Your task to perform on an android device: change the upload size in google photos Image 0: 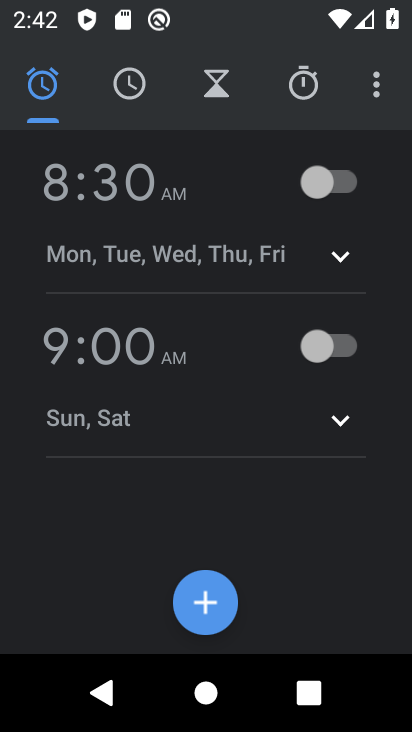
Step 0: press home button
Your task to perform on an android device: change the upload size in google photos Image 1: 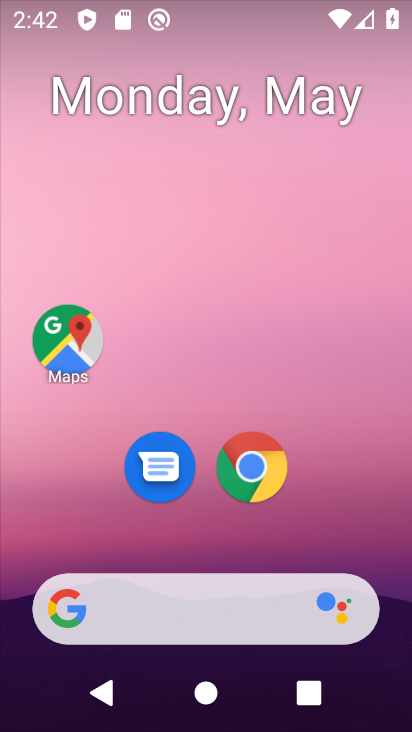
Step 1: drag from (347, 517) to (315, 27)
Your task to perform on an android device: change the upload size in google photos Image 2: 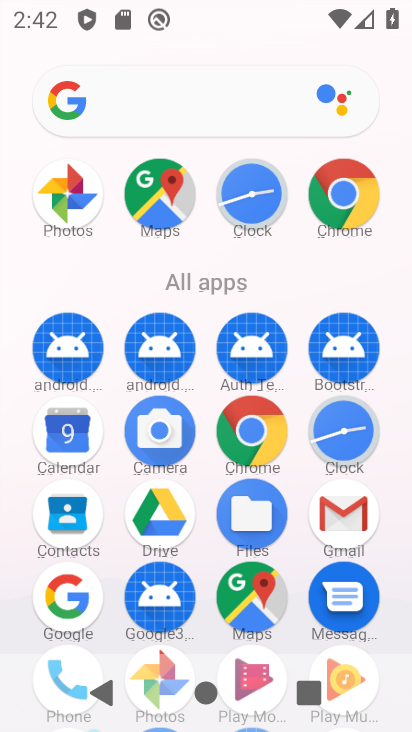
Step 2: drag from (116, 614) to (109, 392)
Your task to perform on an android device: change the upload size in google photos Image 3: 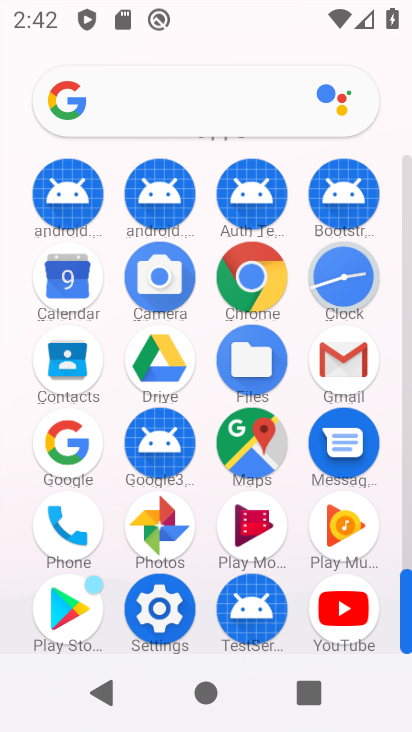
Step 3: click (156, 531)
Your task to perform on an android device: change the upload size in google photos Image 4: 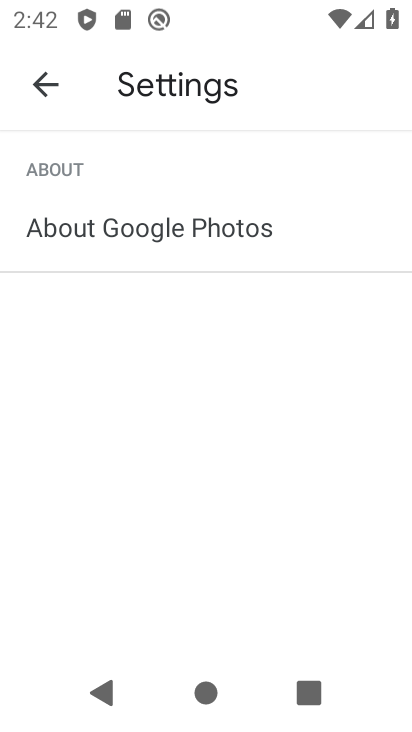
Step 4: click (48, 101)
Your task to perform on an android device: change the upload size in google photos Image 5: 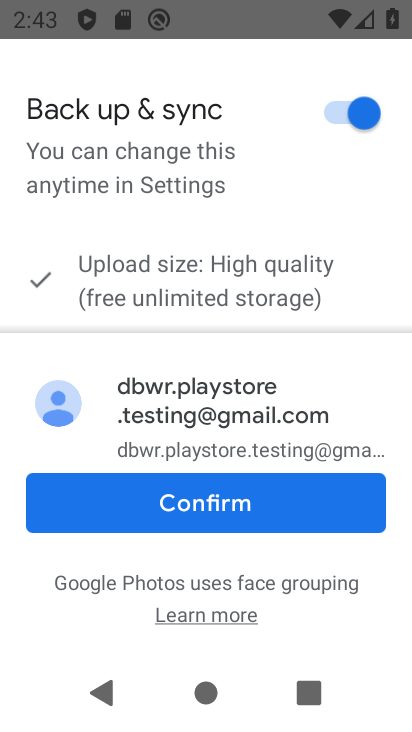
Step 5: click (284, 492)
Your task to perform on an android device: change the upload size in google photos Image 6: 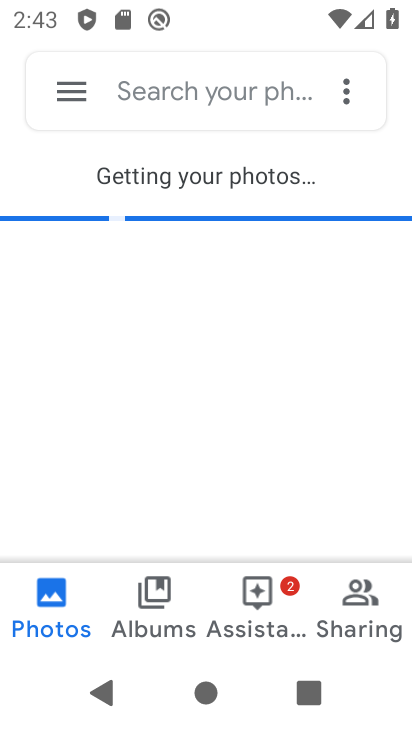
Step 6: click (67, 98)
Your task to perform on an android device: change the upload size in google photos Image 7: 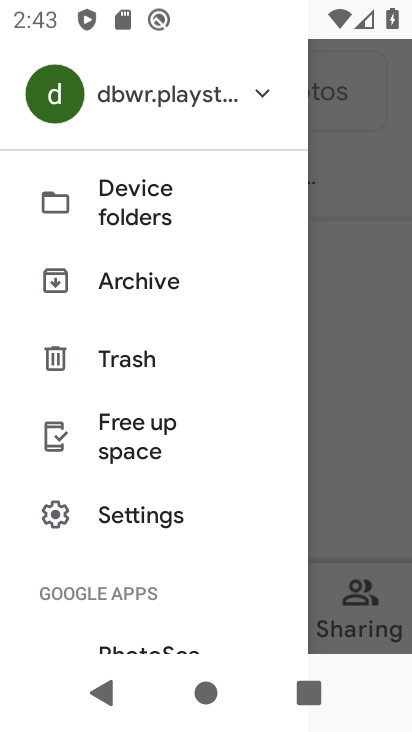
Step 7: drag from (217, 571) to (213, 271)
Your task to perform on an android device: change the upload size in google photos Image 8: 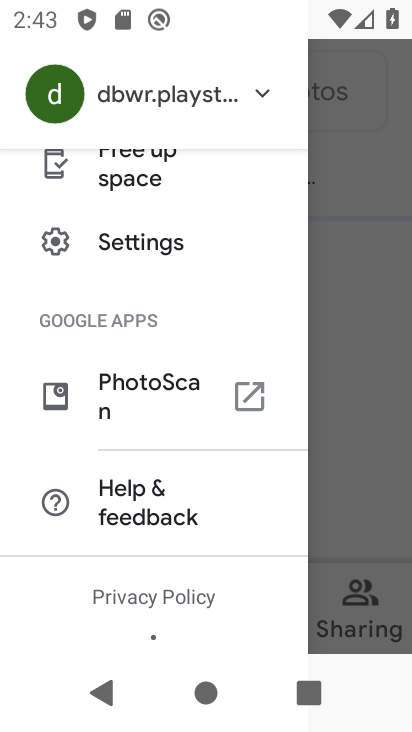
Step 8: drag from (145, 570) to (139, 242)
Your task to perform on an android device: change the upload size in google photos Image 9: 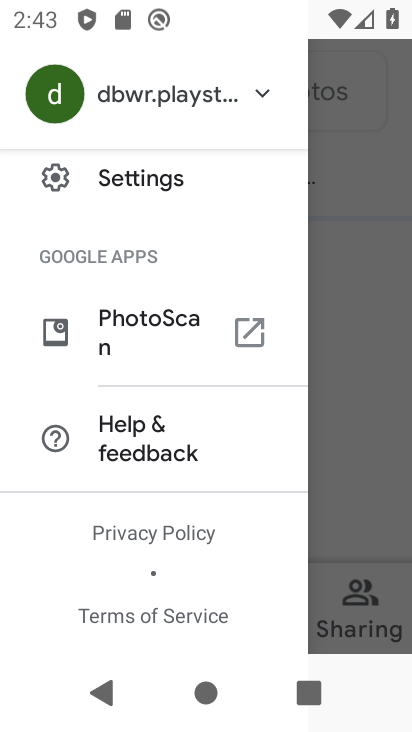
Step 9: click (142, 197)
Your task to perform on an android device: change the upload size in google photos Image 10: 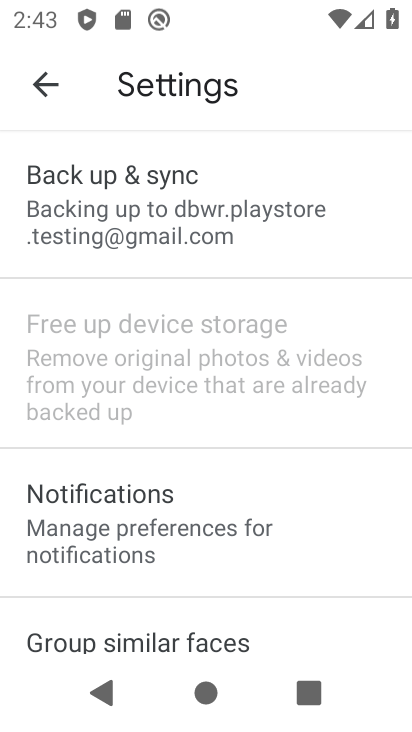
Step 10: click (122, 256)
Your task to perform on an android device: change the upload size in google photos Image 11: 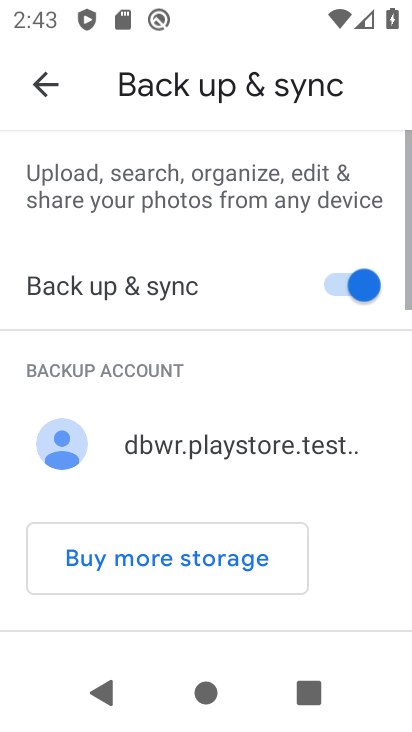
Step 11: drag from (218, 461) to (181, 199)
Your task to perform on an android device: change the upload size in google photos Image 12: 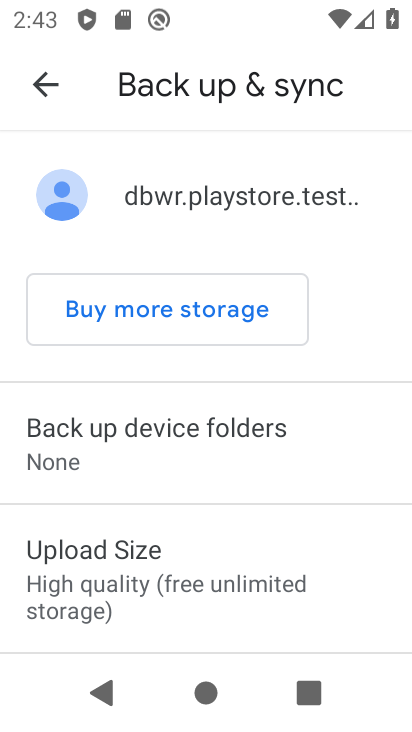
Step 12: click (127, 576)
Your task to perform on an android device: change the upload size in google photos Image 13: 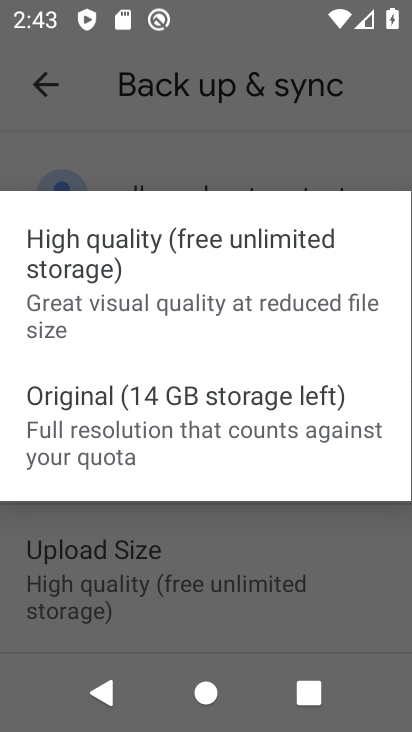
Step 13: click (96, 432)
Your task to perform on an android device: change the upload size in google photos Image 14: 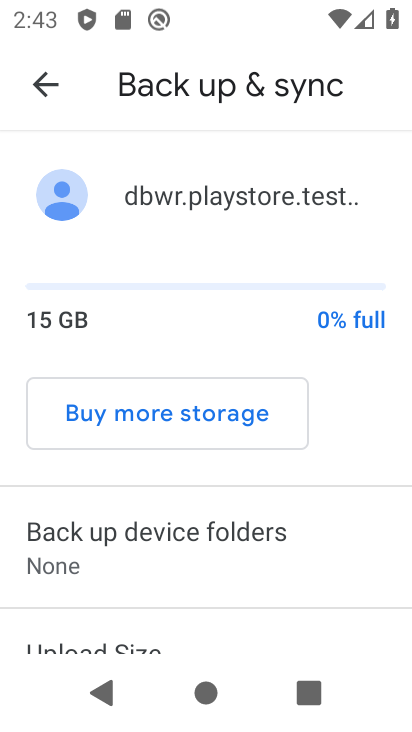
Step 14: task complete